Your task to perform on an android device: Empty the shopping cart on costco.com. Search for "asus zenbook" on costco.com, select the first entry, add it to the cart, then select checkout. Image 0: 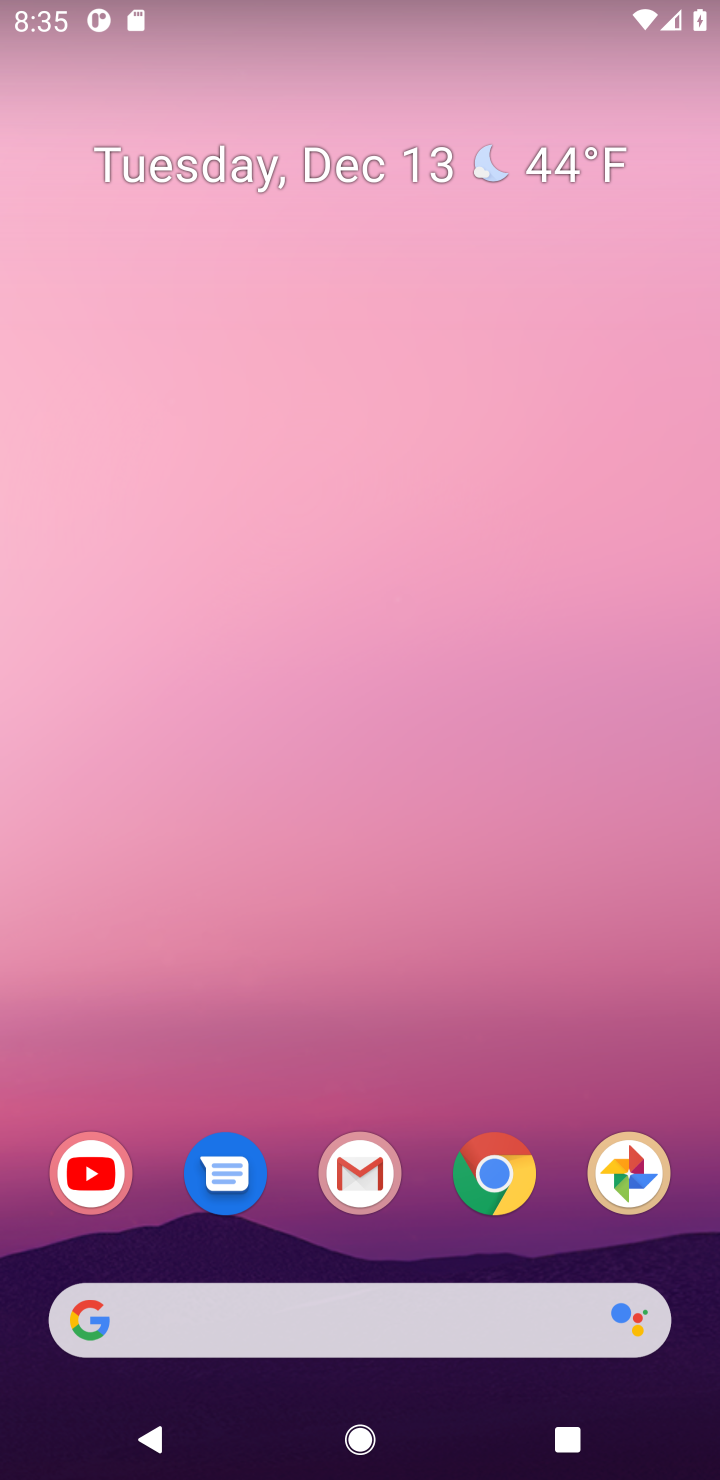
Step 0: press home button
Your task to perform on an android device: Empty the shopping cart on costco.com. Search for "asus zenbook" on costco.com, select the first entry, add it to the cart, then select checkout. Image 1: 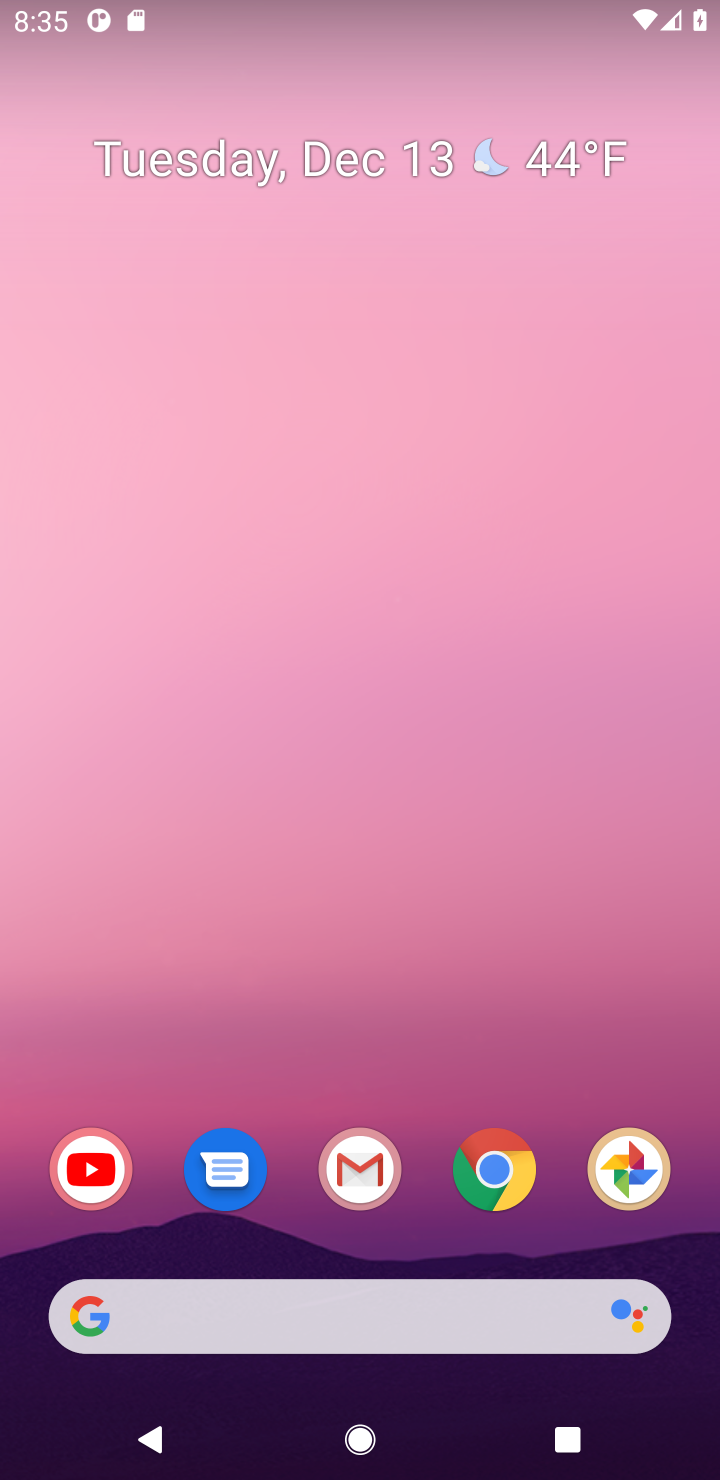
Step 1: click (480, 1180)
Your task to perform on an android device: Empty the shopping cart on costco.com. Search for "asus zenbook" on costco.com, select the first entry, add it to the cart, then select checkout. Image 2: 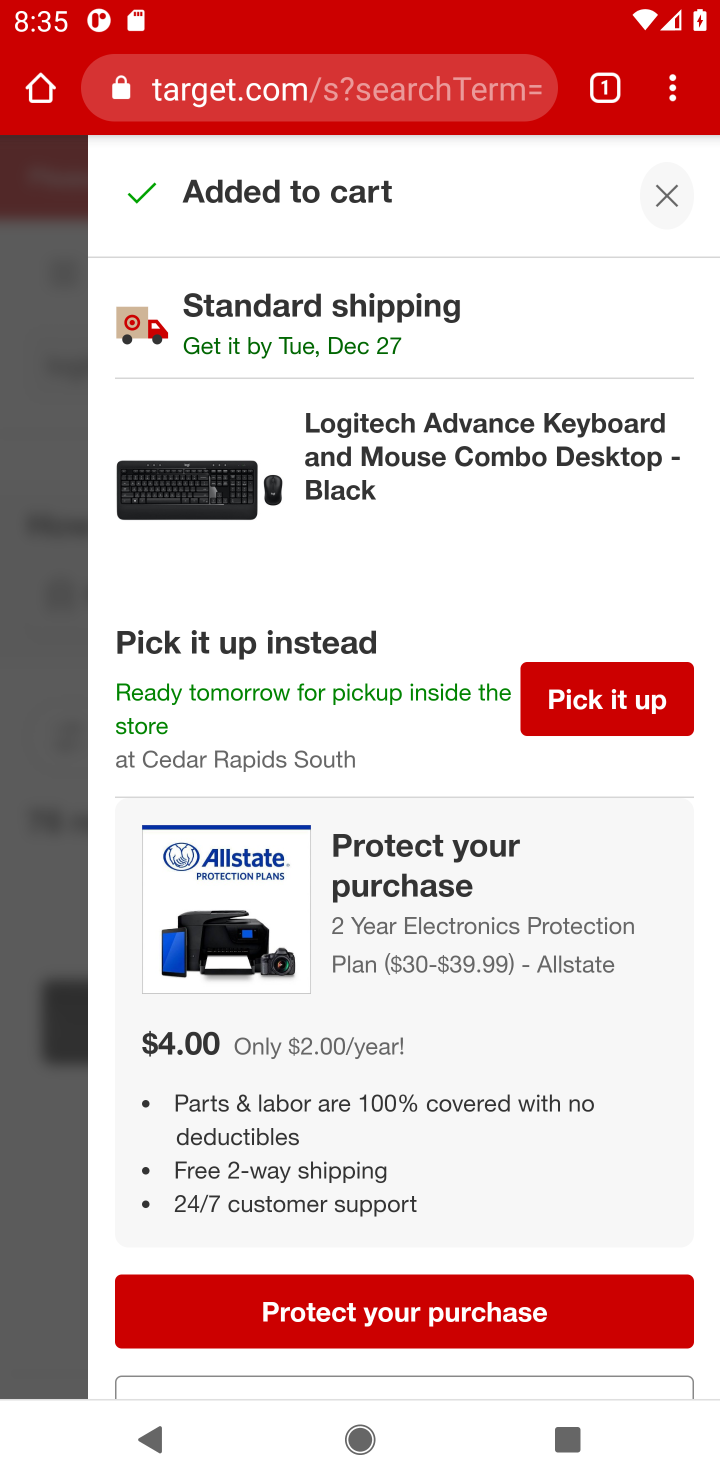
Step 2: click (664, 221)
Your task to perform on an android device: Empty the shopping cart on costco.com. Search for "asus zenbook" on costco.com, select the first entry, add it to the cart, then select checkout. Image 3: 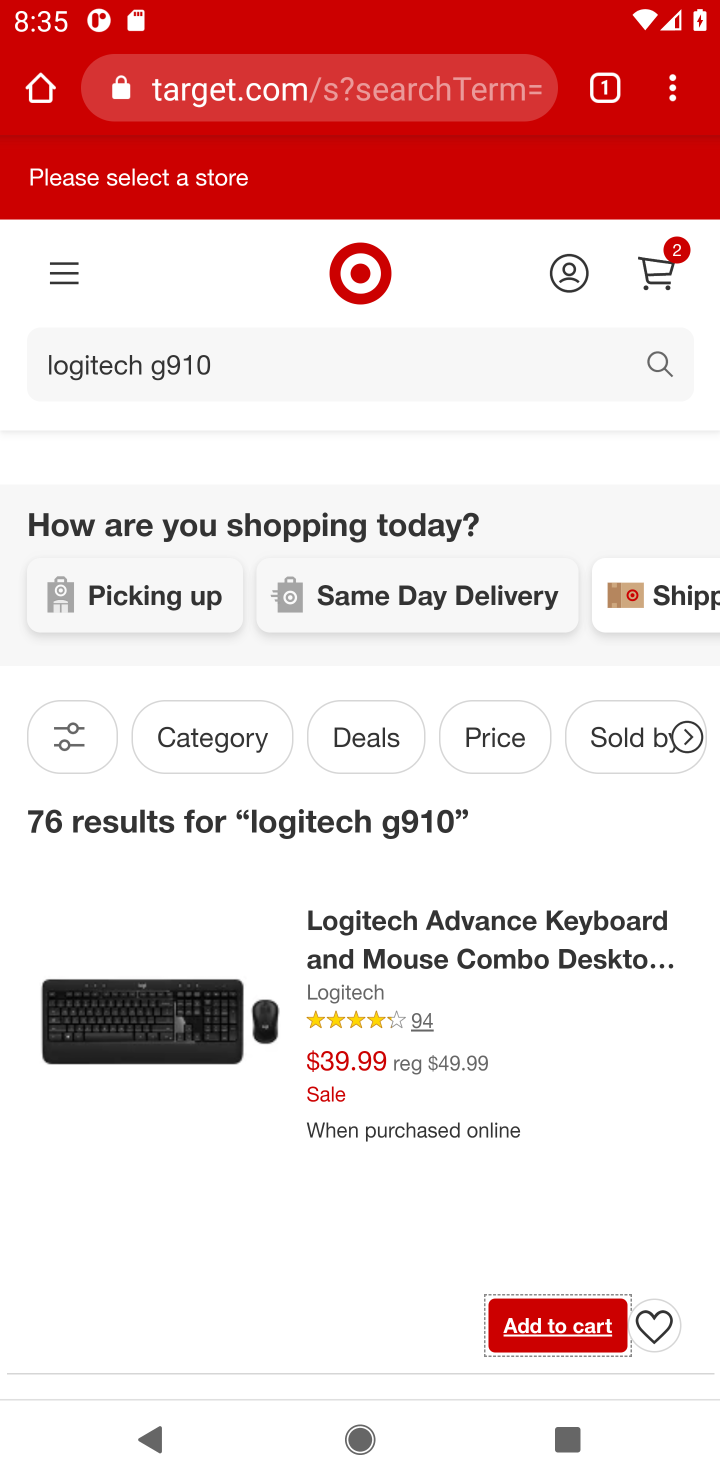
Step 3: click (505, 1326)
Your task to perform on an android device: Empty the shopping cart on costco.com. Search for "asus zenbook" on costco.com, select the first entry, add it to the cart, then select checkout. Image 4: 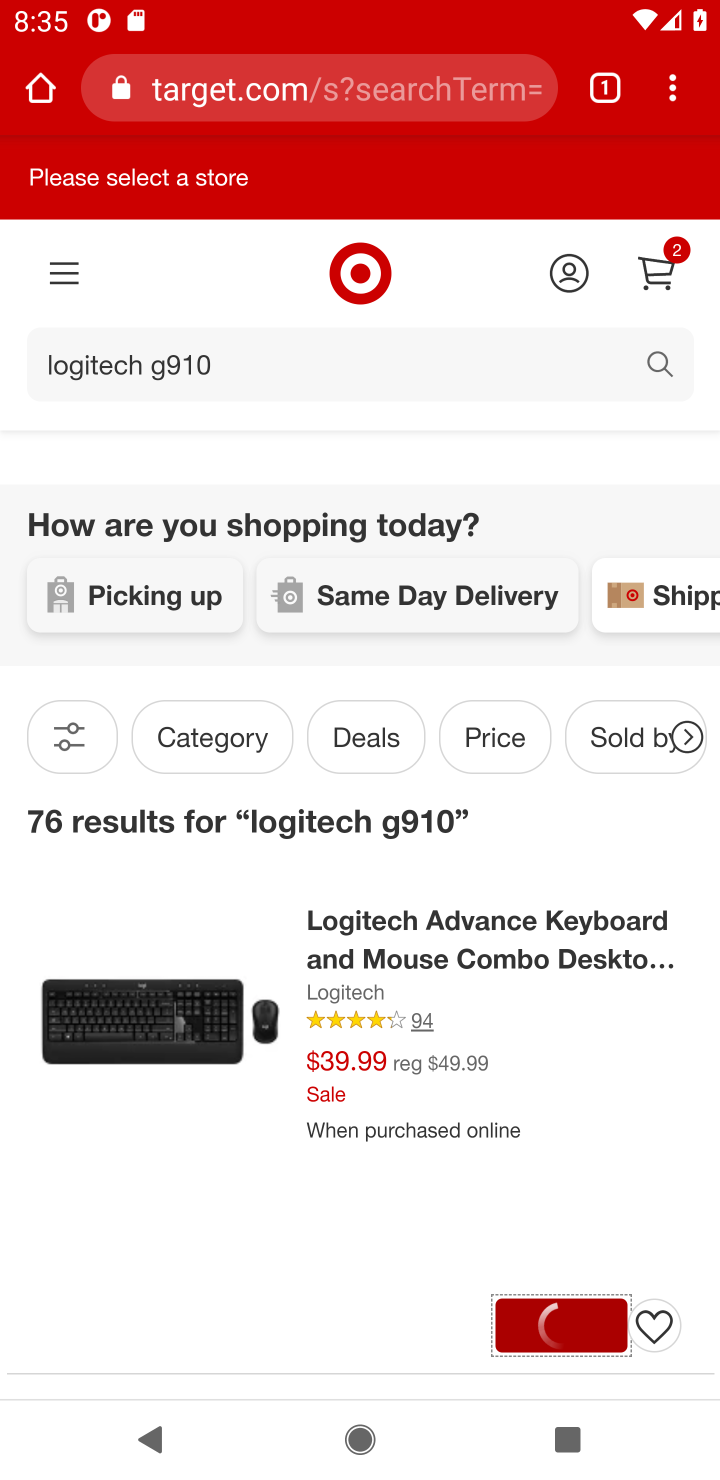
Step 4: task complete